Your task to perform on an android device: refresh tabs in the chrome app Image 0: 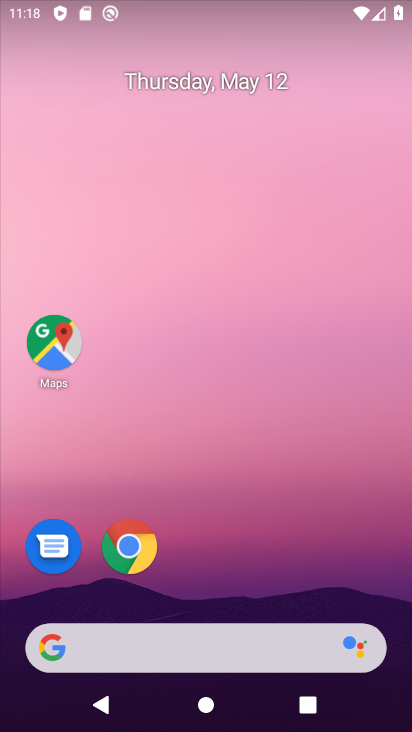
Step 0: click (122, 543)
Your task to perform on an android device: refresh tabs in the chrome app Image 1: 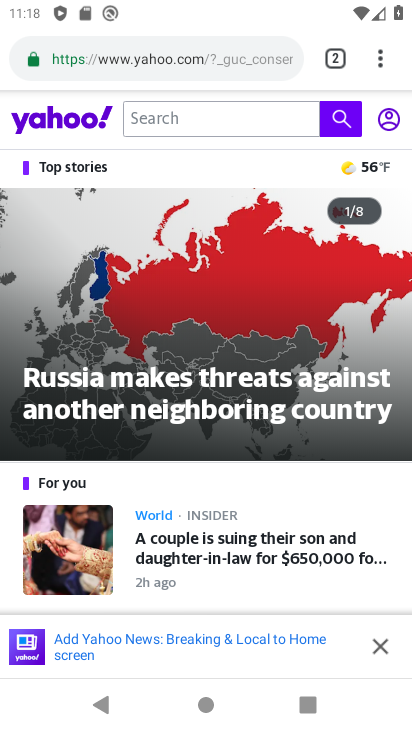
Step 1: click (380, 66)
Your task to perform on an android device: refresh tabs in the chrome app Image 2: 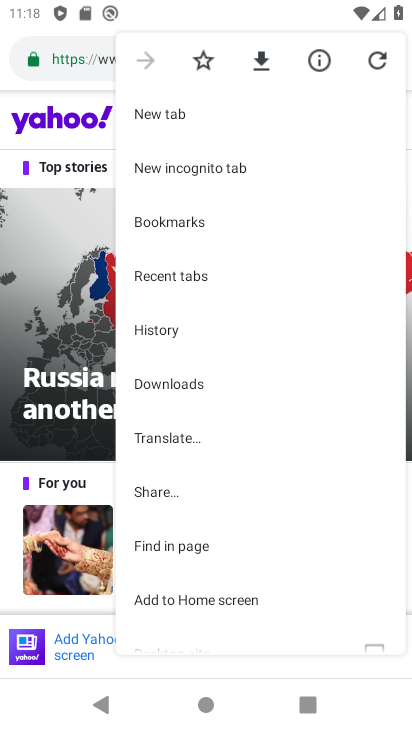
Step 2: click (379, 60)
Your task to perform on an android device: refresh tabs in the chrome app Image 3: 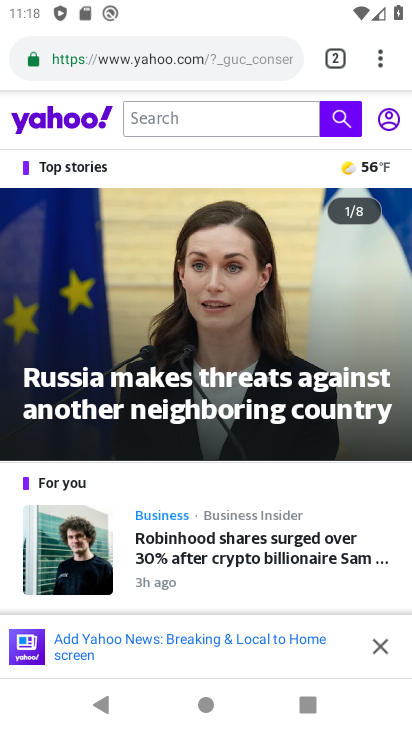
Step 3: task complete